Your task to perform on an android device: toggle priority inbox in the gmail app Image 0: 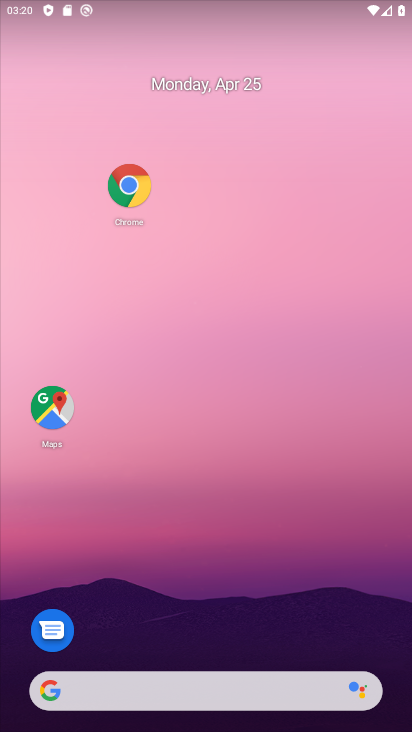
Step 0: click (8, 552)
Your task to perform on an android device: toggle priority inbox in the gmail app Image 1: 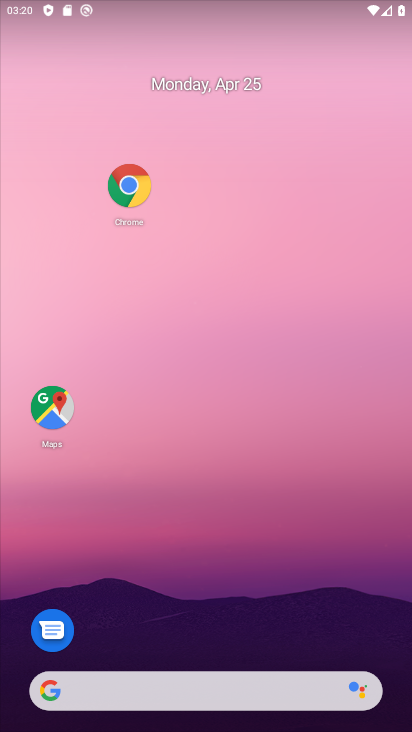
Step 1: drag from (232, 449) to (292, 97)
Your task to perform on an android device: toggle priority inbox in the gmail app Image 2: 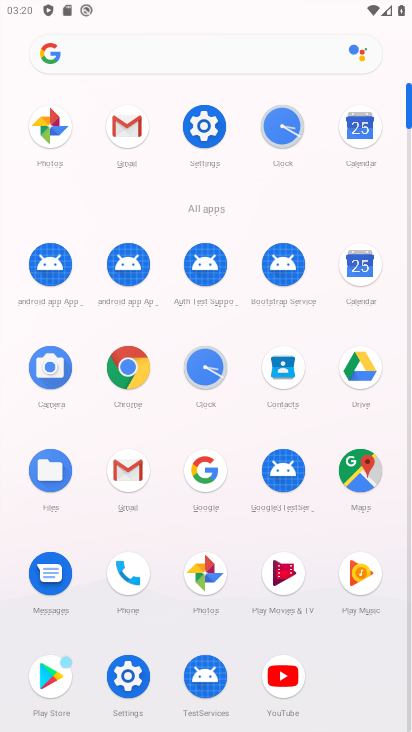
Step 2: click (202, 128)
Your task to perform on an android device: toggle priority inbox in the gmail app Image 3: 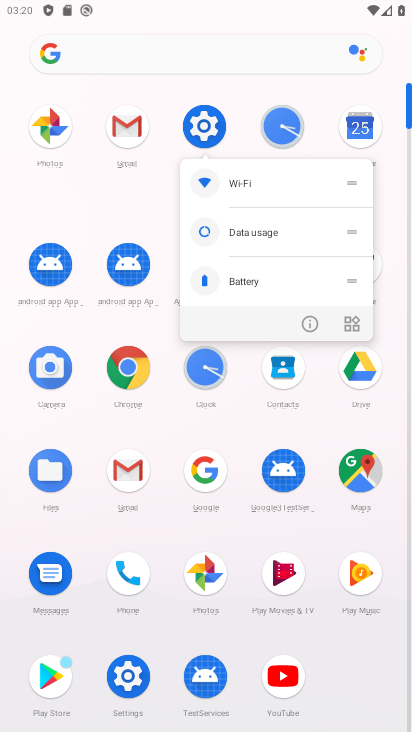
Step 3: click (303, 332)
Your task to perform on an android device: toggle priority inbox in the gmail app Image 4: 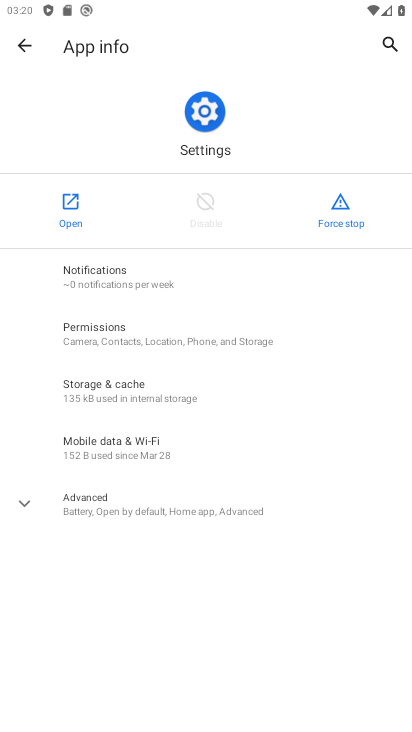
Step 4: click (62, 197)
Your task to perform on an android device: toggle priority inbox in the gmail app Image 5: 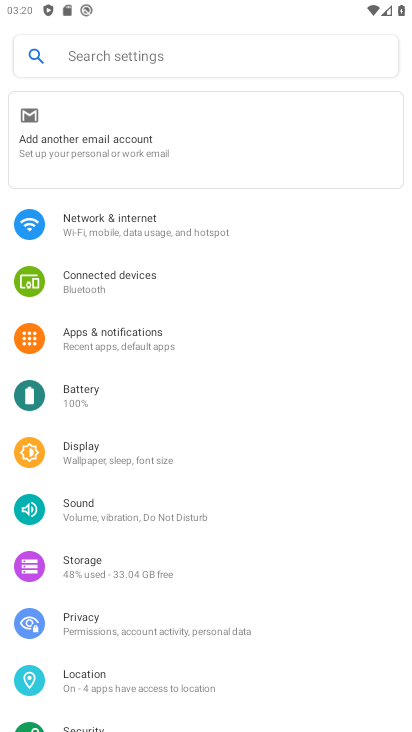
Step 5: press home button
Your task to perform on an android device: toggle priority inbox in the gmail app Image 6: 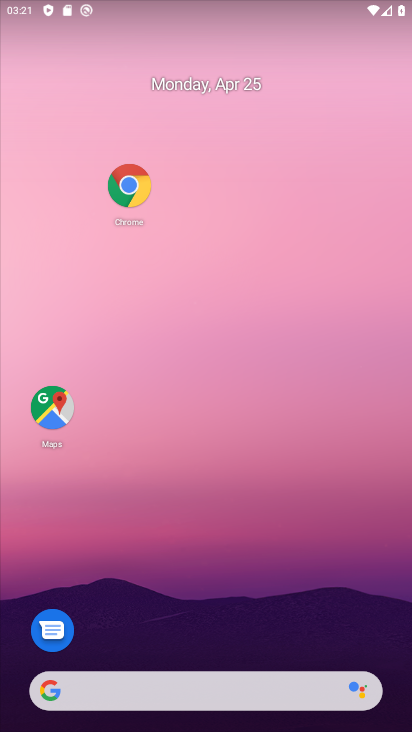
Step 6: drag from (146, 541) to (206, 166)
Your task to perform on an android device: toggle priority inbox in the gmail app Image 7: 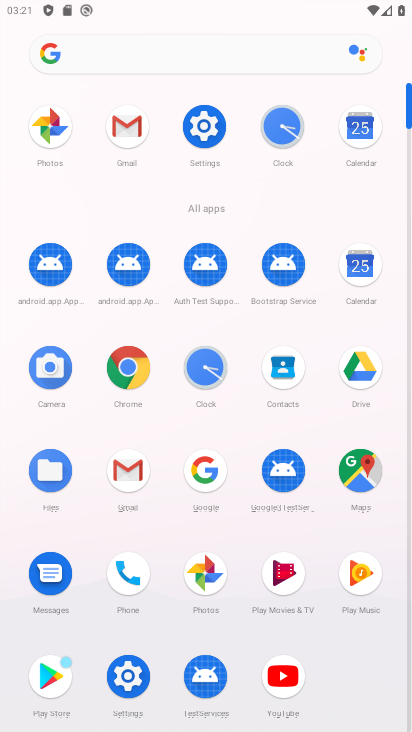
Step 7: click (126, 479)
Your task to perform on an android device: toggle priority inbox in the gmail app Image 8: 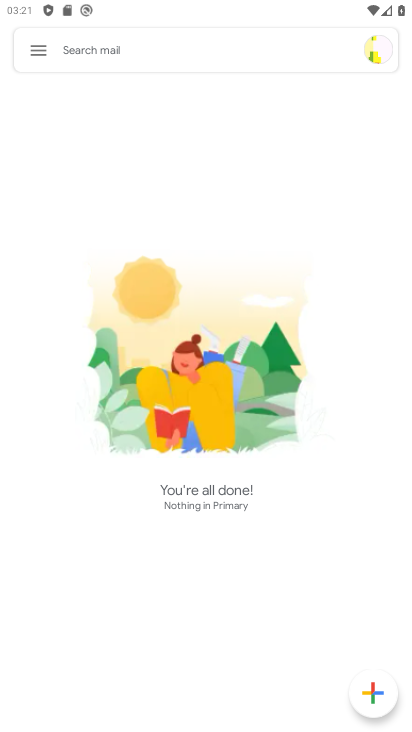
Step 8: click (41, 44)
Your task to perform on an android device: toggle priority inbox in the gmail app Image 9: 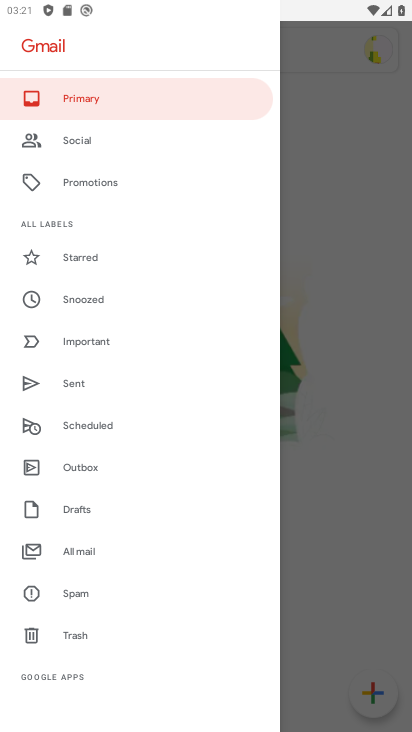
Step 9: drag from (106, 672) to (227, 293)
Your task to perform on an android device: toggle priority inbox in the gmail app Image 10: 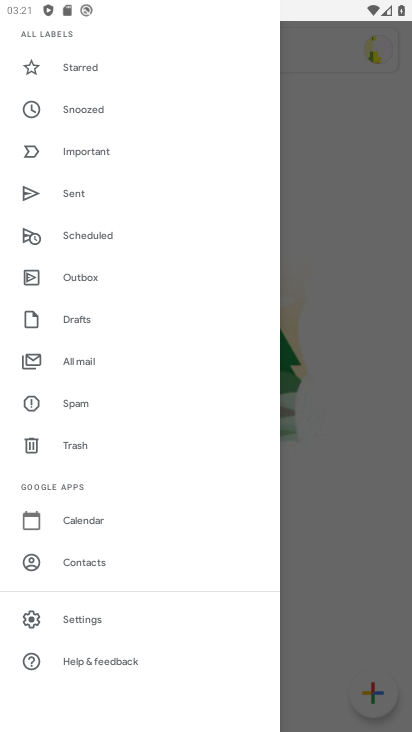
Step 10: click (88, 615)
Your task to perform on an android device: toggle priority inbox in the gmail app Image 11: 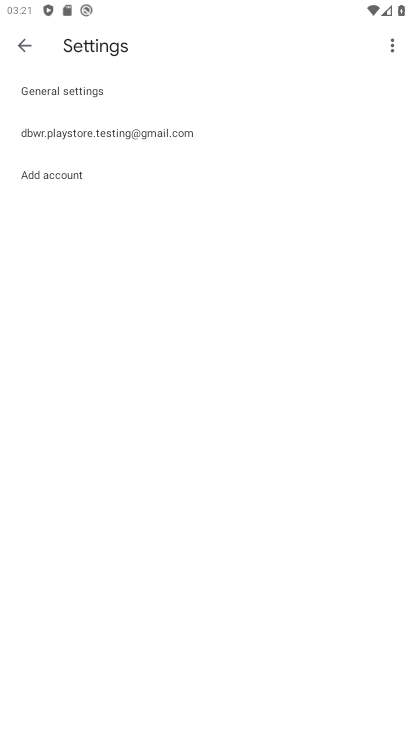
Step 11: click (112, 129)
Your task to perform on an android device: toggle priority inbox in the gmail app Image 12: 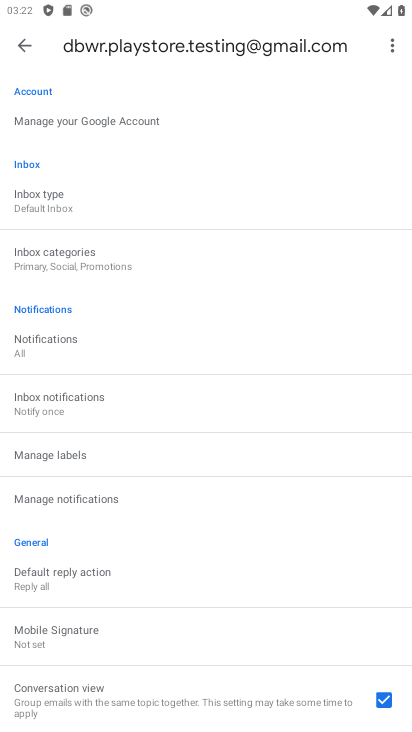
Step 12: click (67, 209)
Your task to perform on an android device: toggle priority inbox in the gmail app Image 13: 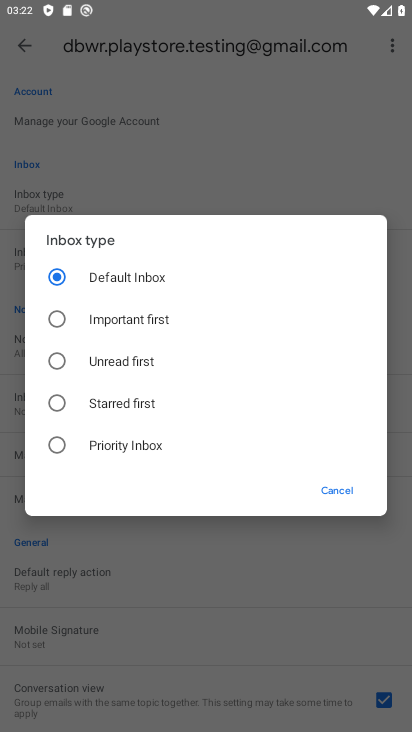
Step 13: click (136, 441)
Your task to perform on an android device: toggle priority inbox in the gmail app Image 14: 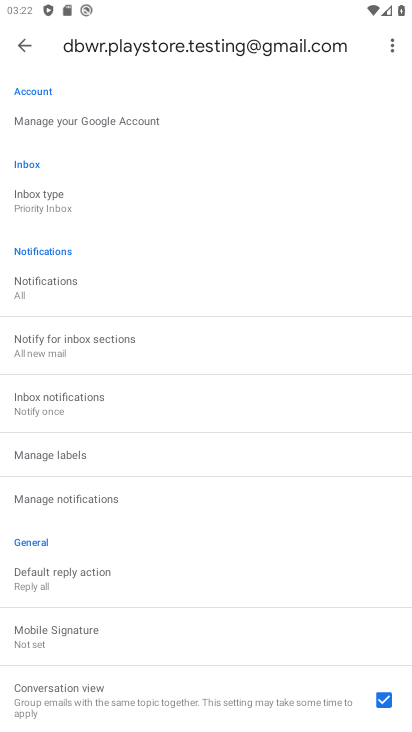
Step 14: task complete